Your task to perform on an android device: set an alarm Image 0: 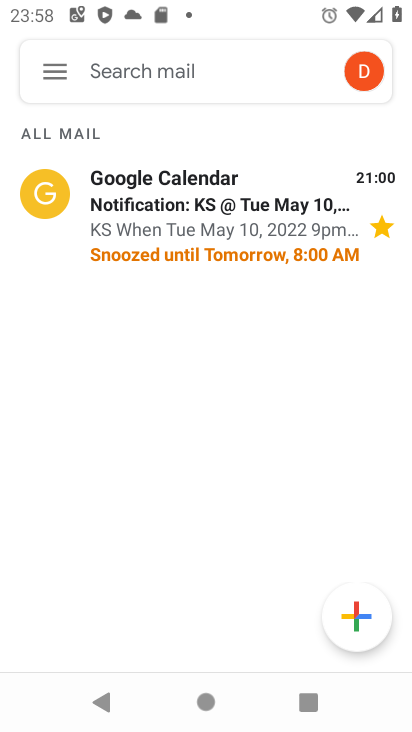
Step 0: press home button
Your task to perform on an android device: set an alarm Image 1: 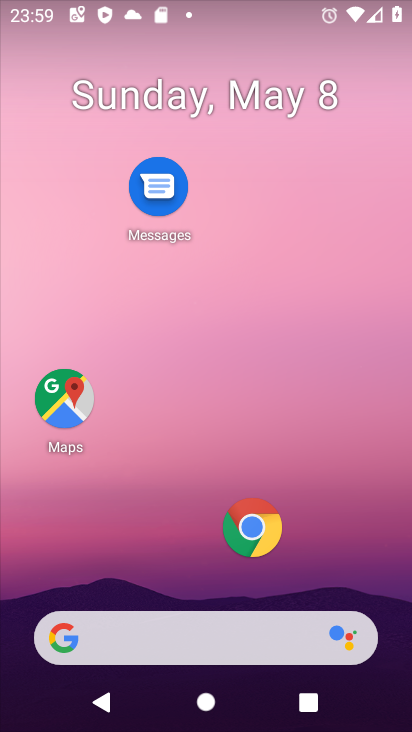
Step 1: drag from (192, 538) to (243, 106)
Your task to perform on an android device: set an alarm Image 2: 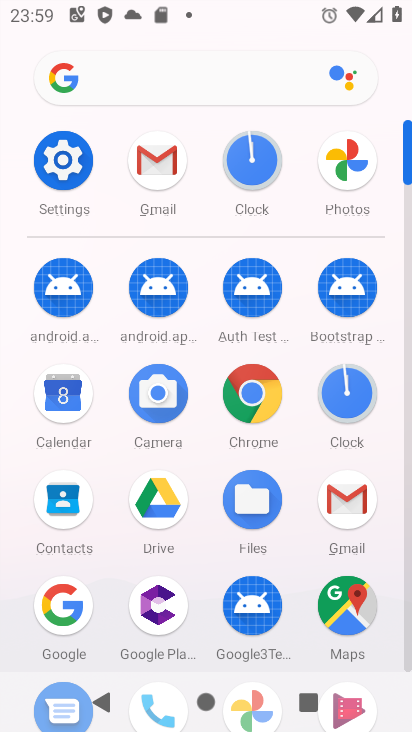
Step 2: drag from (205, 481) to (192, 320)
Your task to perform on an android device: set an alarm Image 3: 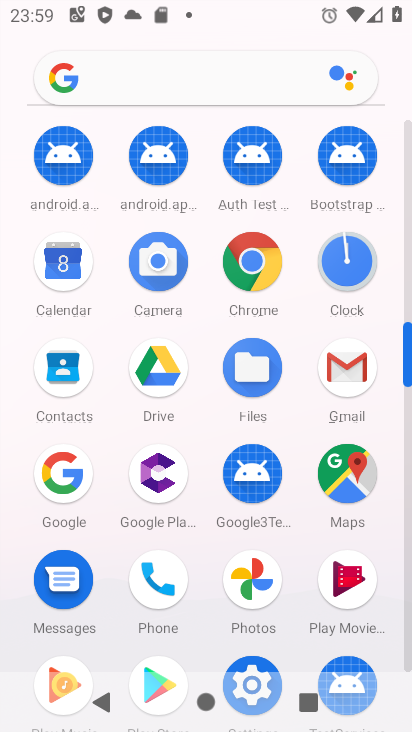
Step 3: click (343, 269)
Your task to perform on an android device: set an alarm Image 4: 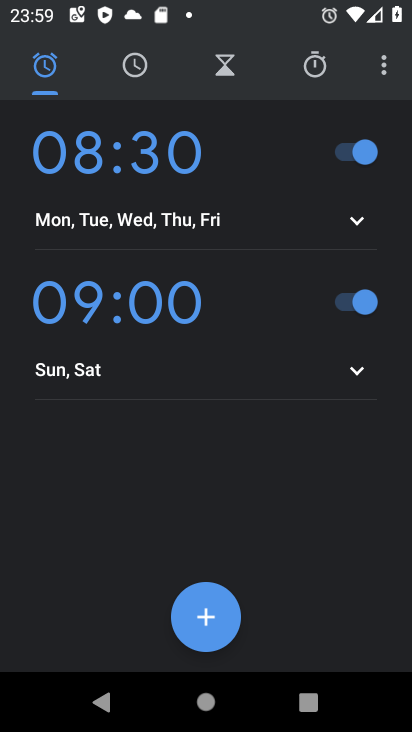
Step 4: click (361, 165)
Your task to perform on an android device: set an alarm Image 5: 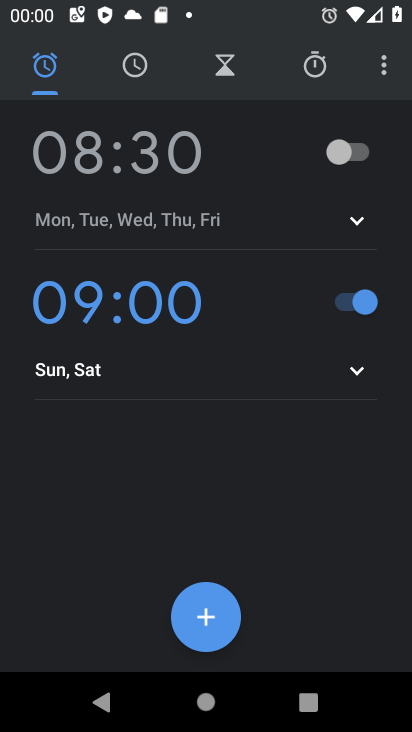
Step 5: click (361, 165)
Your task to perform on an android device: set an alarm Image 6: 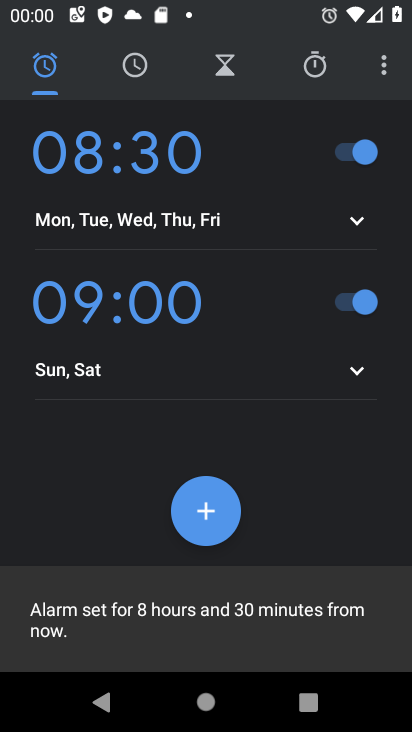
Step 6: click (200, 509)
Your task to perform on an android device: set an alarm Image 7: 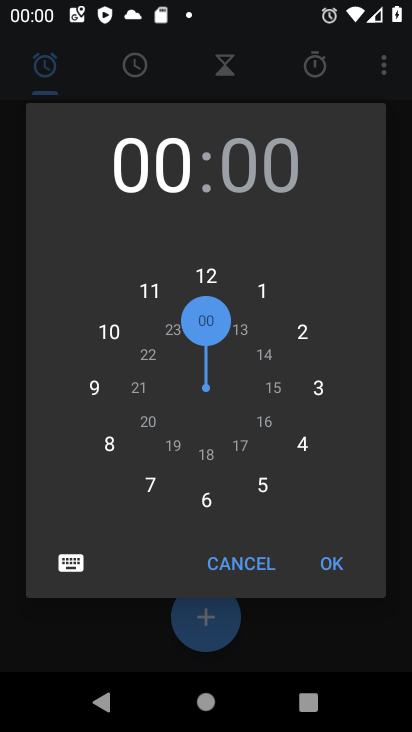
Step 7: drag from (201, 331) to (244, 428)
Your task to perform on an android device: set an alarm Image 8: 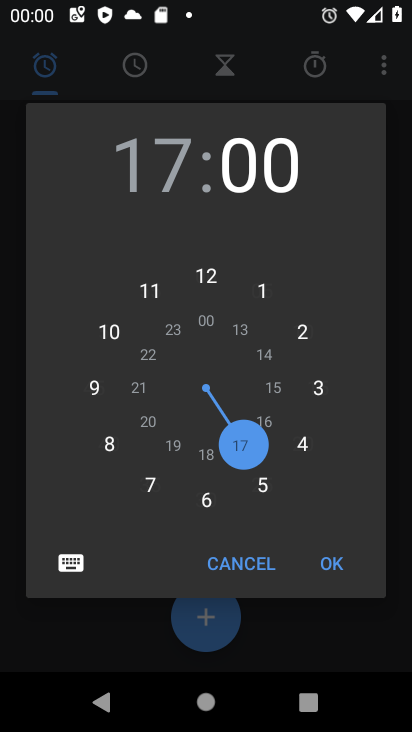
Step 8: click (219, 493)
Your task to perform on an android device: set an alarm Image 9: 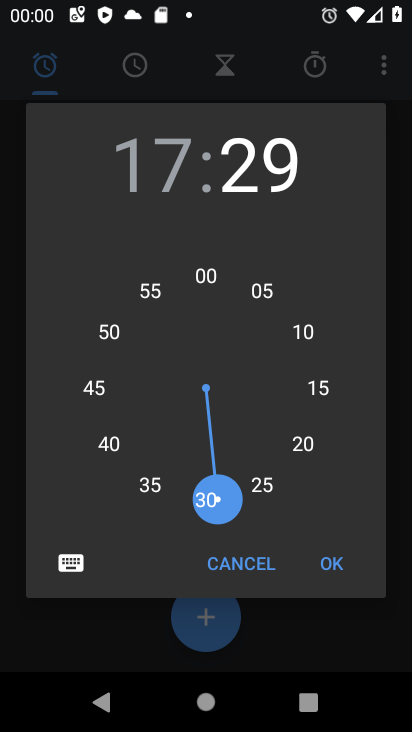
Step 9: click (322, 554)
Your task to perform on an android device: set an alarm Image 10: 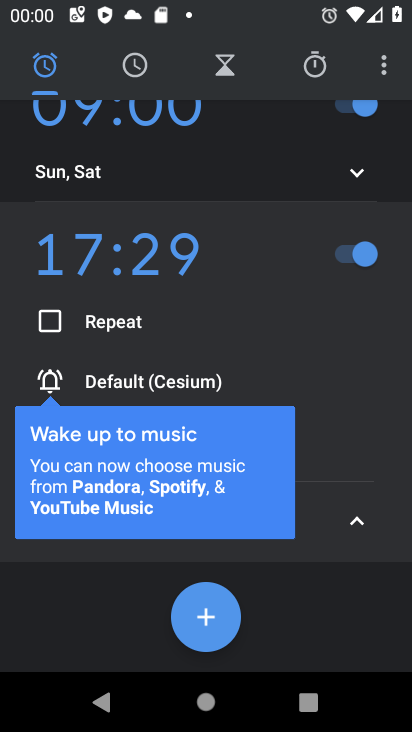
Step 10: task complete